Your task to perform on an android device: Go to Google Image 0: 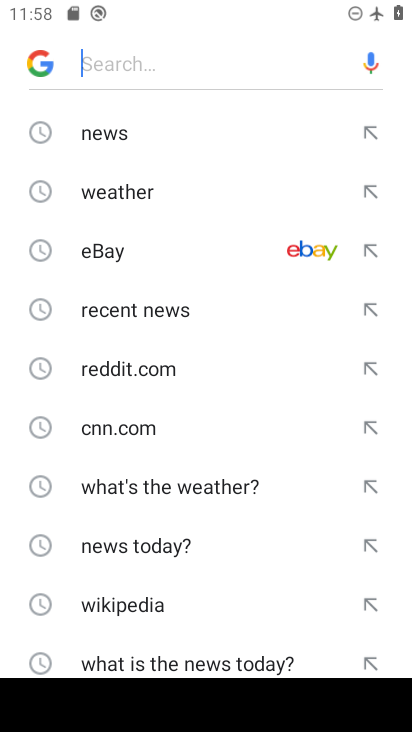
Step 0: press home button
Your task to perform on an android device: Go to Google Image 1: 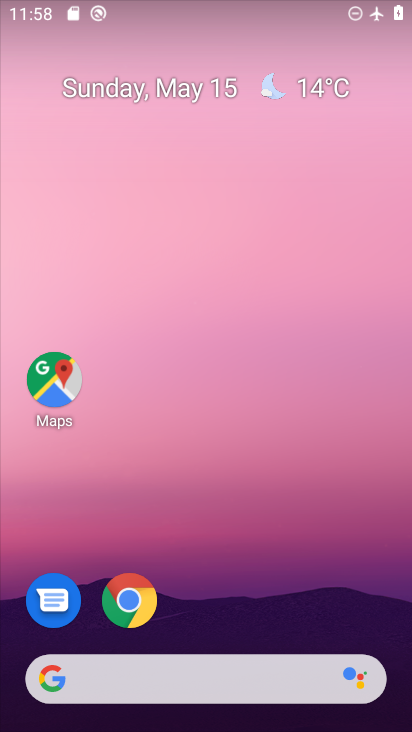
Step 1: click (128, 600)
Your task to perform on an android device: Go to Google Image 2: 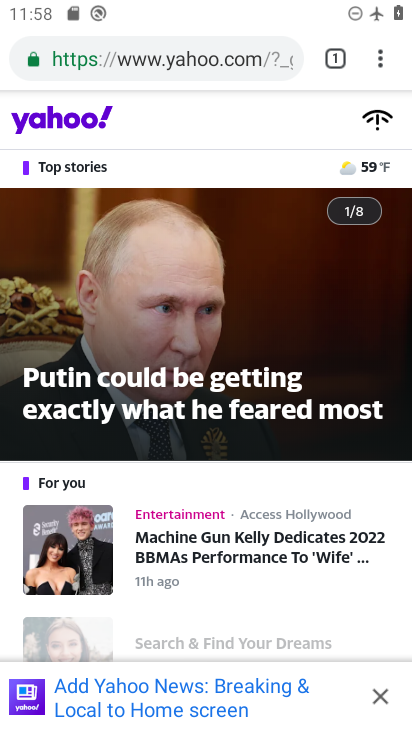
Step 2: task complete